Your task to perform on an android device: Open Google Chrome and open the bookmarks view Image 0: 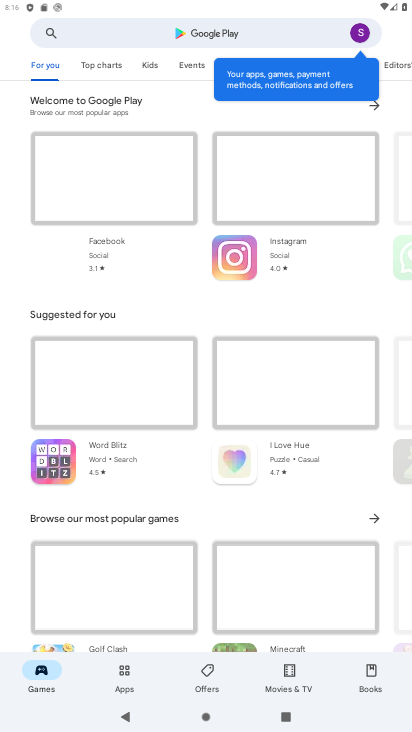
Step 0: press home button
Your task to perform on an android device: Open Google Chrome and open the bookmarks view Image 1: 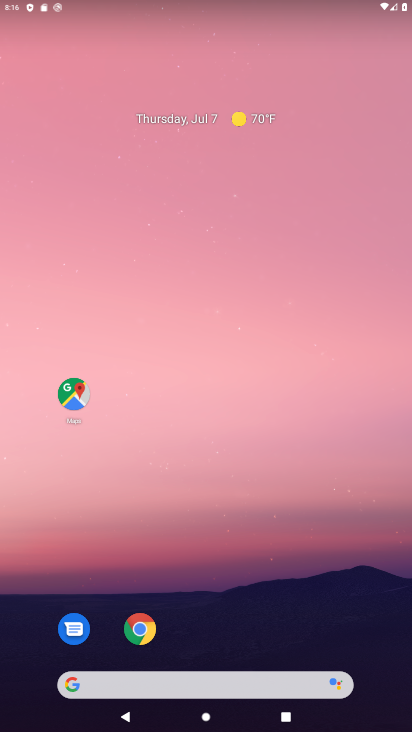
Step 1: drag from (224, 623) to (309, 177)
Your task to perform on an android device: Open Google Chrome and open the bookmarks view Image 2: 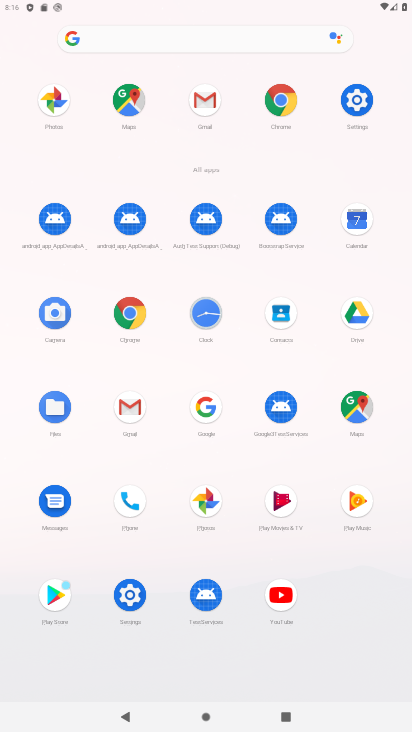
Step 2: click (120, 309)
Your task to perform on an android device: Open Google Chrome and open the bookmarks view Image 3: 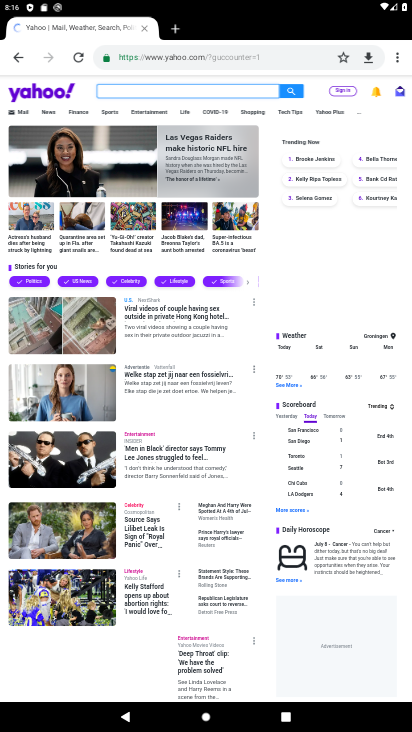
Step 3: task complete